Your task to perform on an android device: Open Chrome and go to settings Image 0: 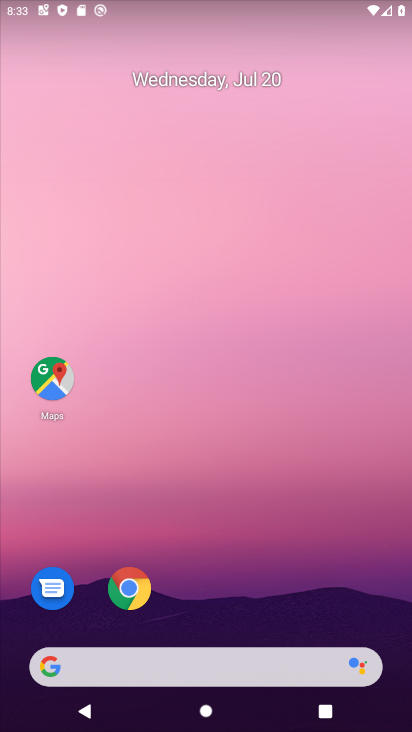
Step 0: click (139, 593)
Your task to perform on an android device: Open Chrome and go to settings Image 1: 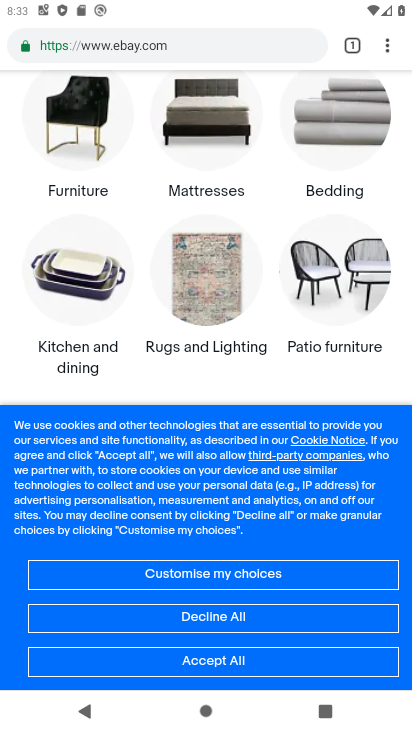
Step 1: click (396, 48)
Your task to perform on an android device: Open Chrome and go to settings Image 2: 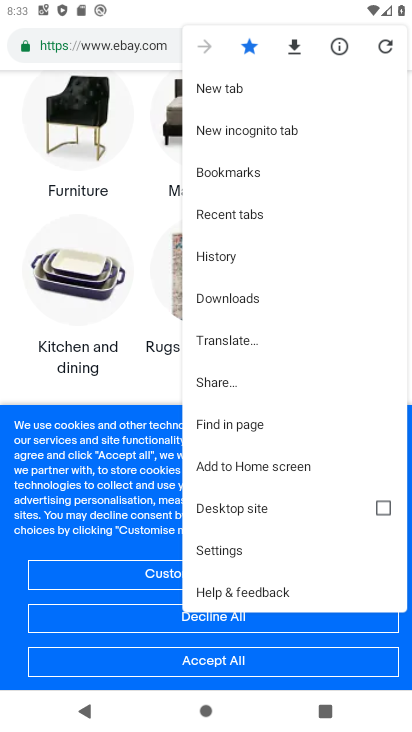
Step 2: click (242, 554)
Your task to perform on an android device: Open Chrome and go to settings Image 3: 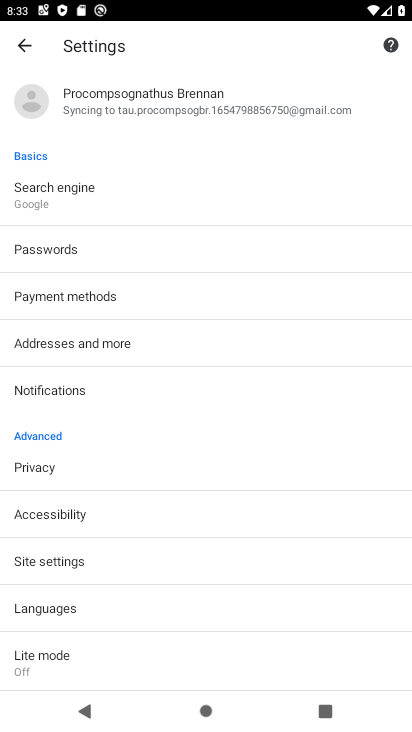
Step 3: task complete